Your task to perform on an android device: Open Google Chrome Image 0: 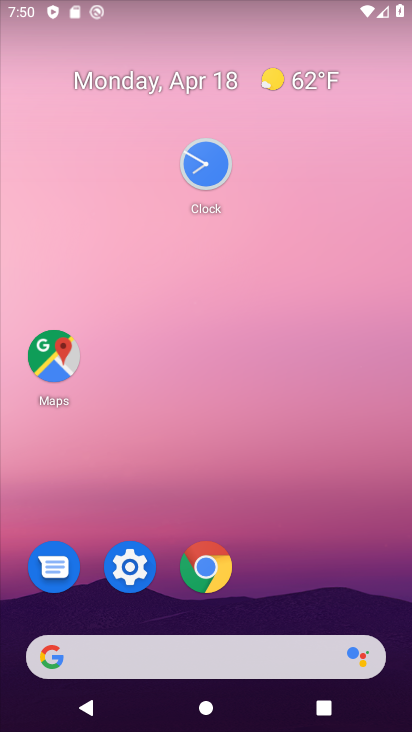
Step 0: click (303, 159)
Your task to perform on an android device: Open Google Chrome Image 1: 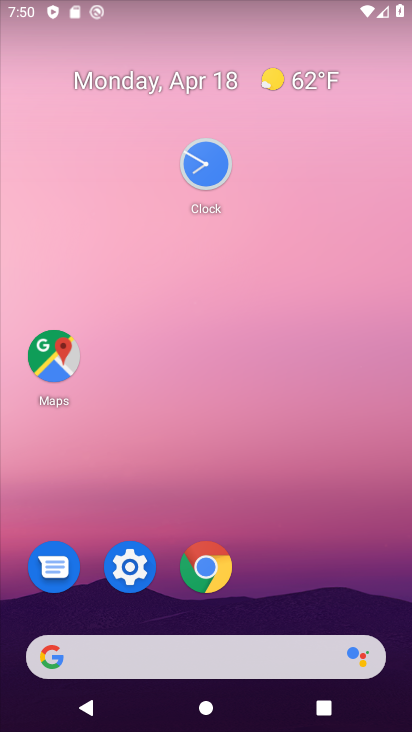
Step 1: drag from (264, 296) to (211, 81)
Your task to perform on an android device: Open Google Chrome Image 2: 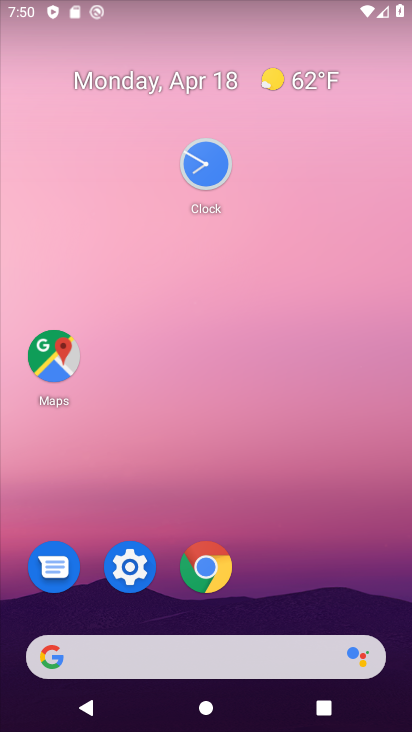
Step 2: drag from (298, 595) to (154, 35)
Your task to perform on an android device: Open Google Chrome Image 3: 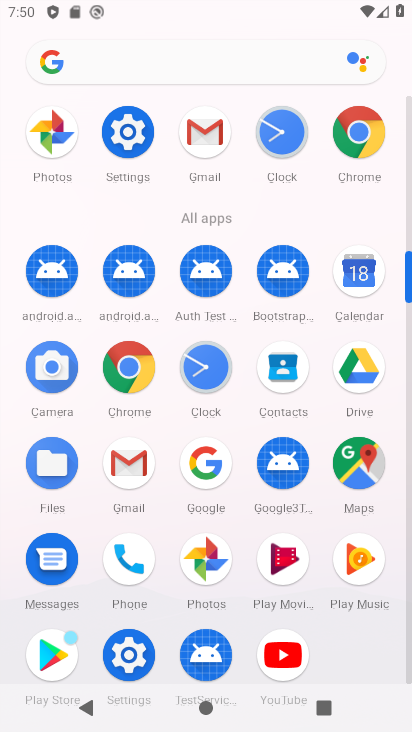
Step 3: click (354, 128)
Your task to perform on an android device: Open Google Chrome Image 4: 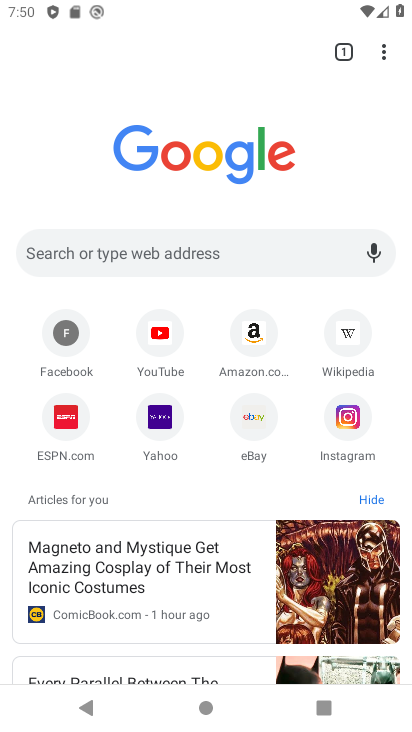
Step 4: task complete